Your task to perform on an android device: Open the stopwatch Image 0: 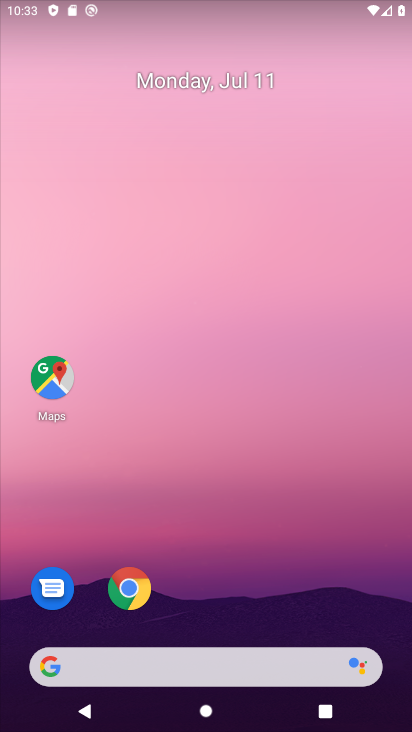
Step 0: drag from (268, 537) to (234, 115)
Your task to perform on an android device: Open the stopwatch Image 1: 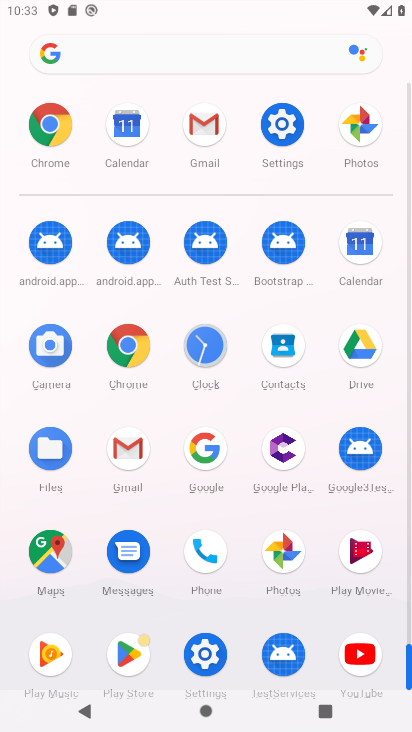
Step 1: click (207, 348)
Your task to perform on an android device: Open the stopwatch Image 2: 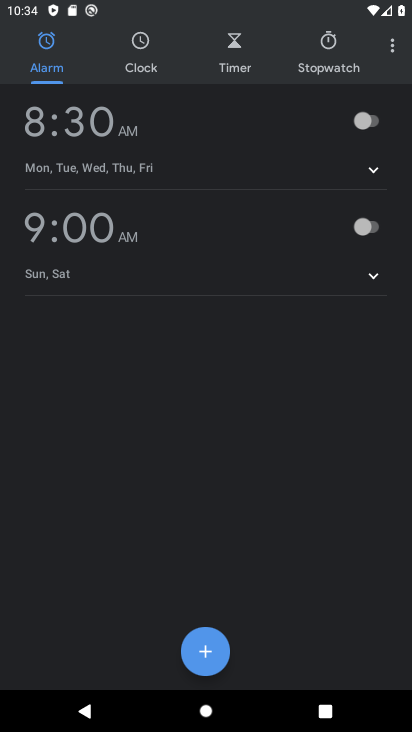
Step 2: click (326, 43)
Your task to perform on an android device: Open the stopwatch Image 3: 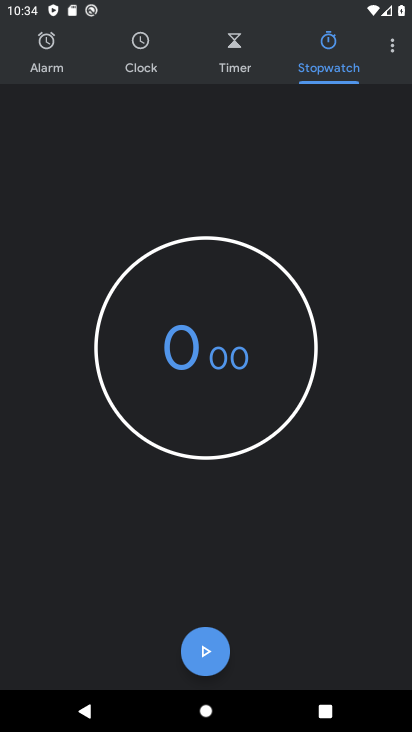
Step 3: task complete